Your task to perform on an android device: Open privacy settings Image 0: 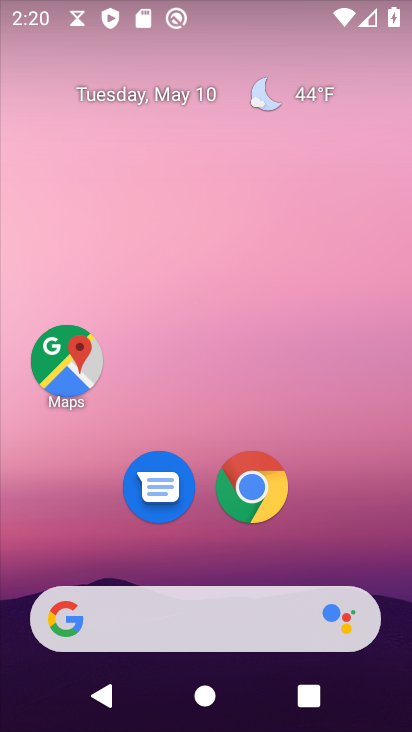
Step 0: click (253, 490)
Your task to perform on an android device: Open privacy settings Image 1: 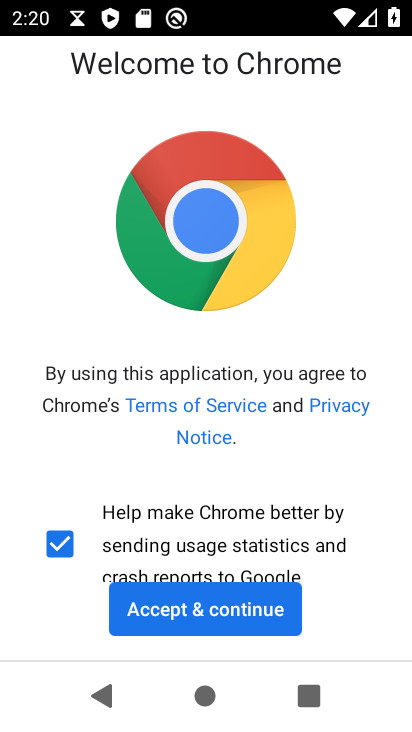
Step 1: click (242, 605)
Your task to perform on an android device: Open privacy settings Image 2: 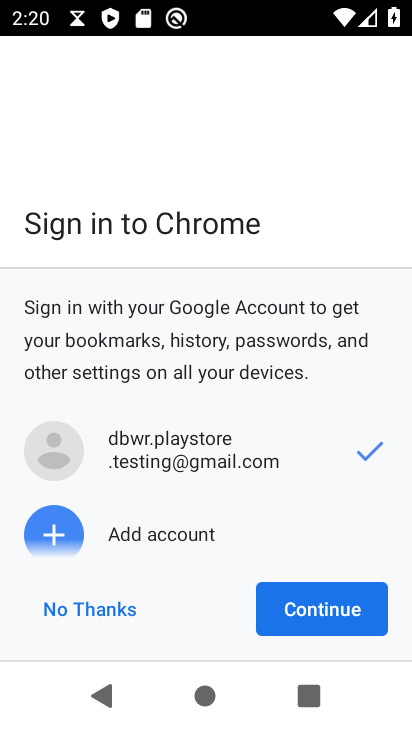
Step 2: click (305, 611)
Your task to perform on an android device: Open privacy settings Image 3: 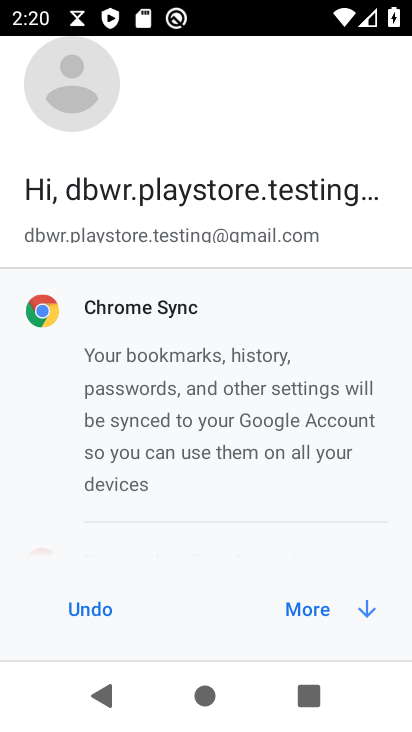
Step 3: click (329, 611)
Your task to perform on an android device: Open privacy settings Image 4: 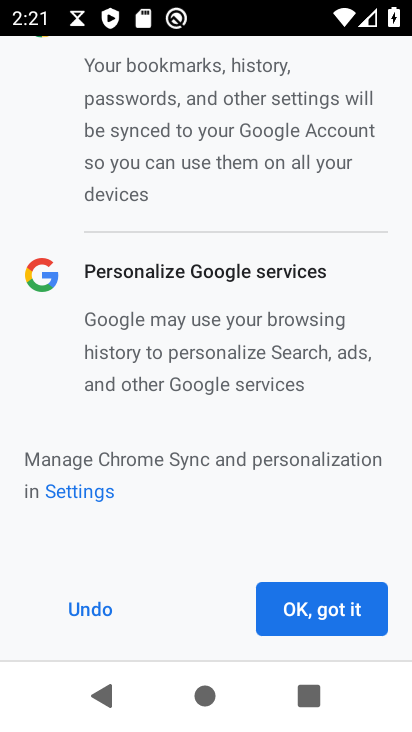
Step 4: click (329, 611)
Your task to perform on an android device: Open privacy settings Image 5: 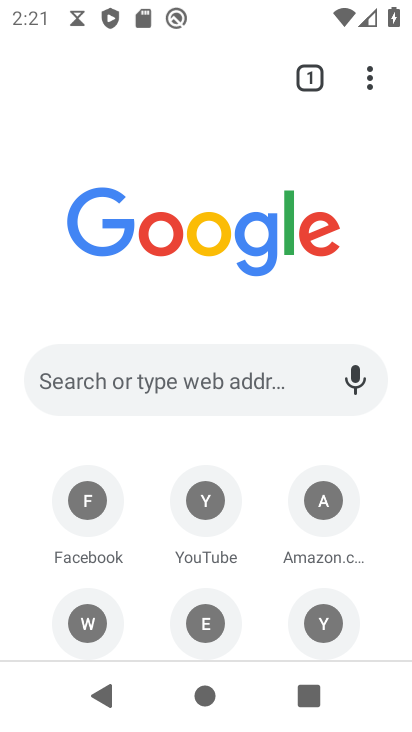
Step 5: drag from (377, 89) to (197, 541)
Your task to perform on an android device: Open privacy settings Image 6: 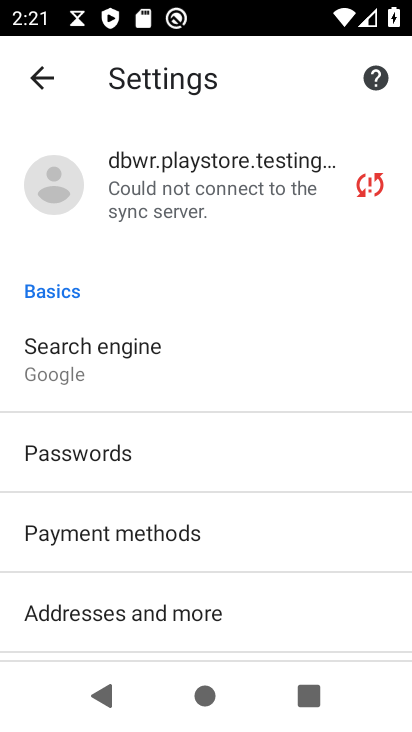
Step 6: drag from (185, 617) to (323, 281)
Your task to perform on an android device: Open privacy settings Image 7: 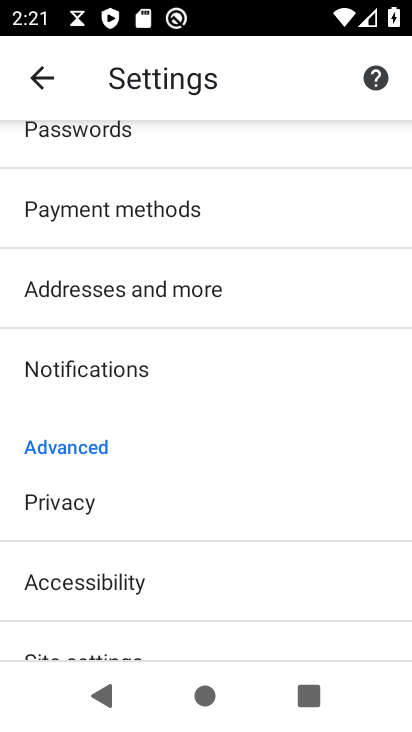
Step 7: click (160, 515)
Your task to perform on an android device: Open privacy settings Image 8: 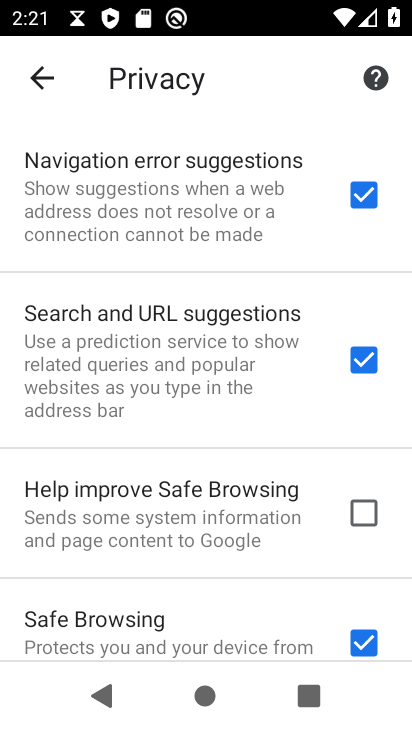
Step 8: task complete